Your task to perform on an android device: turn off data saver in the chrome app Image 0: 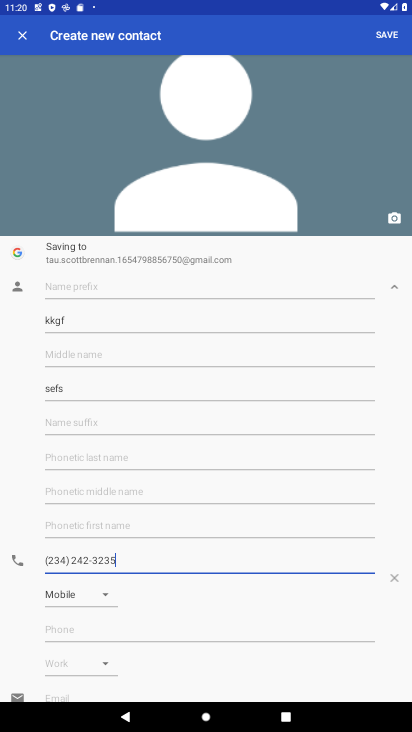
Step 0: press home button
Your task to perform on an android device: turn off data saver in the chrome app Image 1: 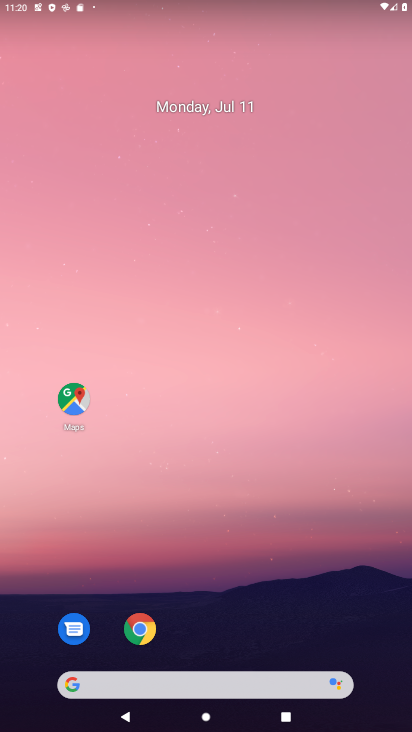
Step 1: click (149, 629)
Your task to perform on an android device: turn off data saver in the chrome app Image 2: 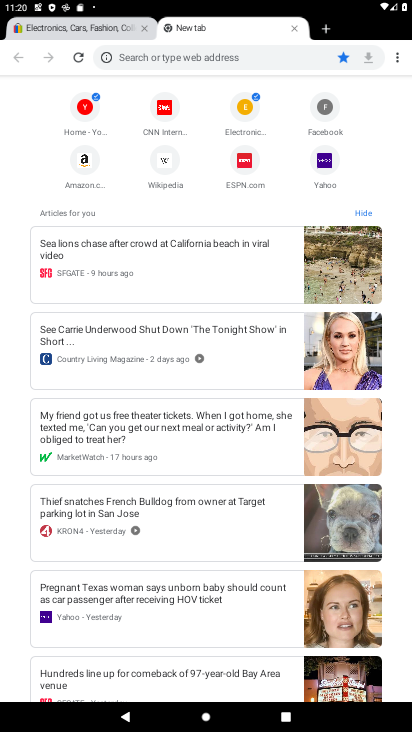
Step 2: click (402, 57)
Your task to perform on an android device: turn off data saver in the chrome app Image 3: 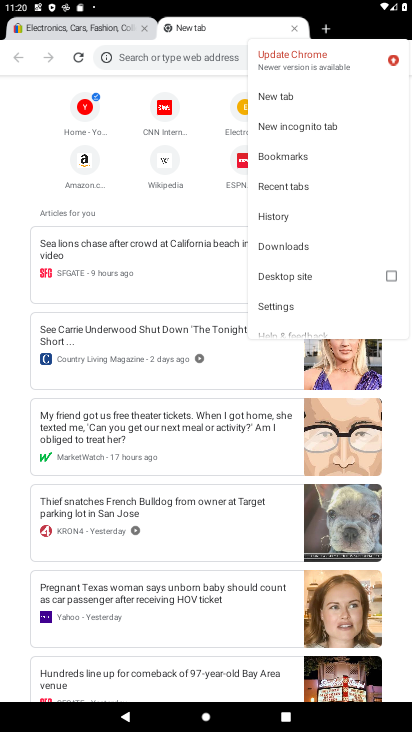
Step 3: click (284, 298)
Your task to perform on an android device: turn off data saver in the chrome app Image 4: 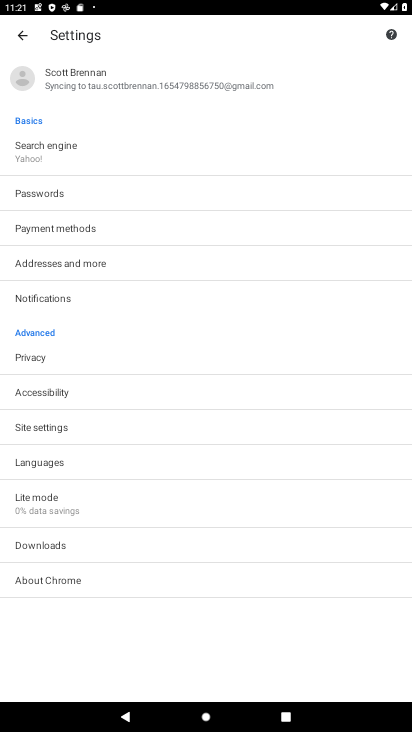
Step 4: click (131, 503)
Your task to perform on an android device: turn off data saver in the chrome app Image 5: 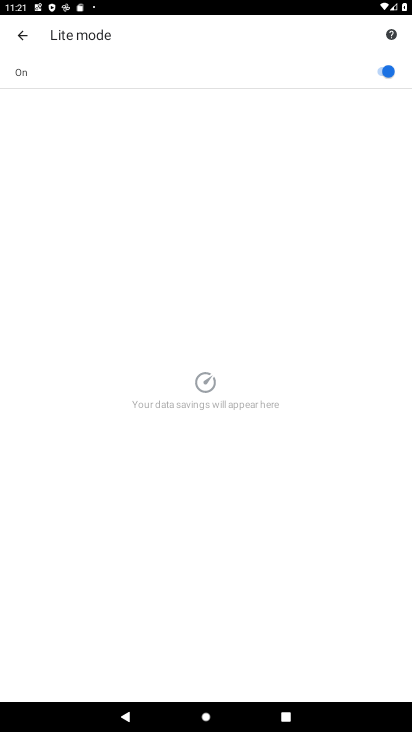
Step 5: click (389, 89)
Your task to perform on an android device: turn off data saver in the chrome app Image 6: 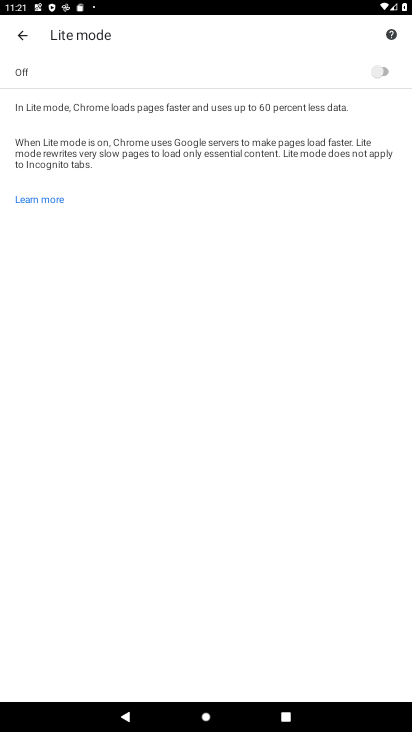
Step 6: task complete